Your task to perform on an android device: check battery use Image 0: 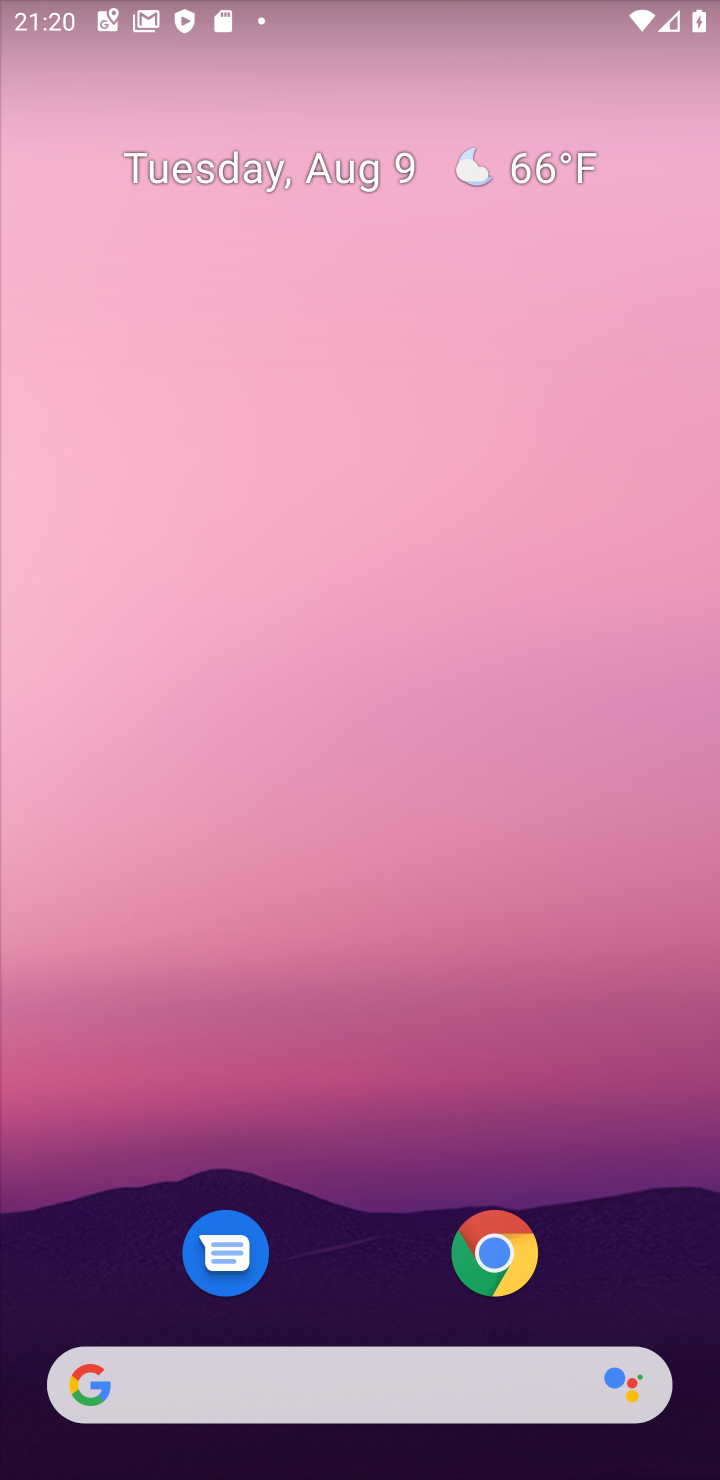
Step 0: press home button
Your task to perform on an android device: check battery use Image 1: 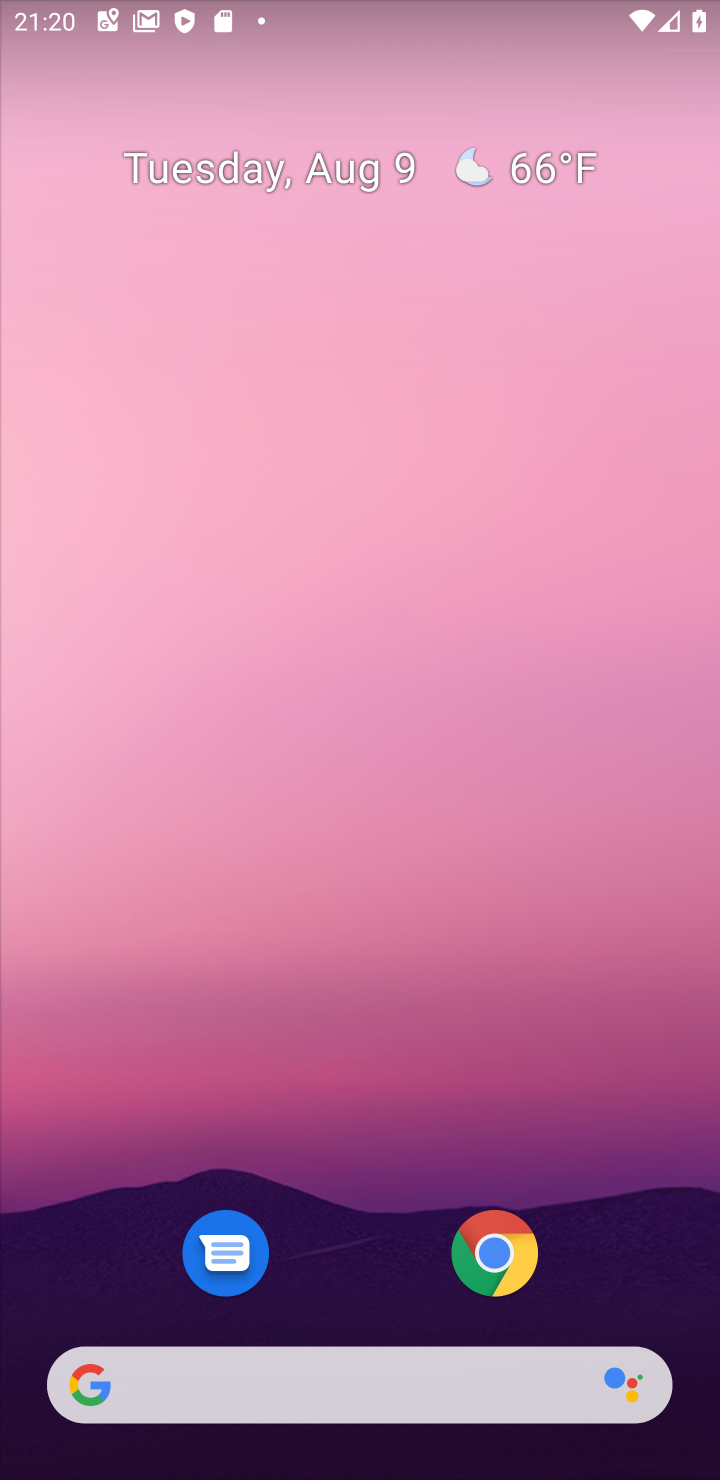
Step 1: drag from (356, 1192) to (44, 6)
Your task to perform on an android device: check battery use Image 2: 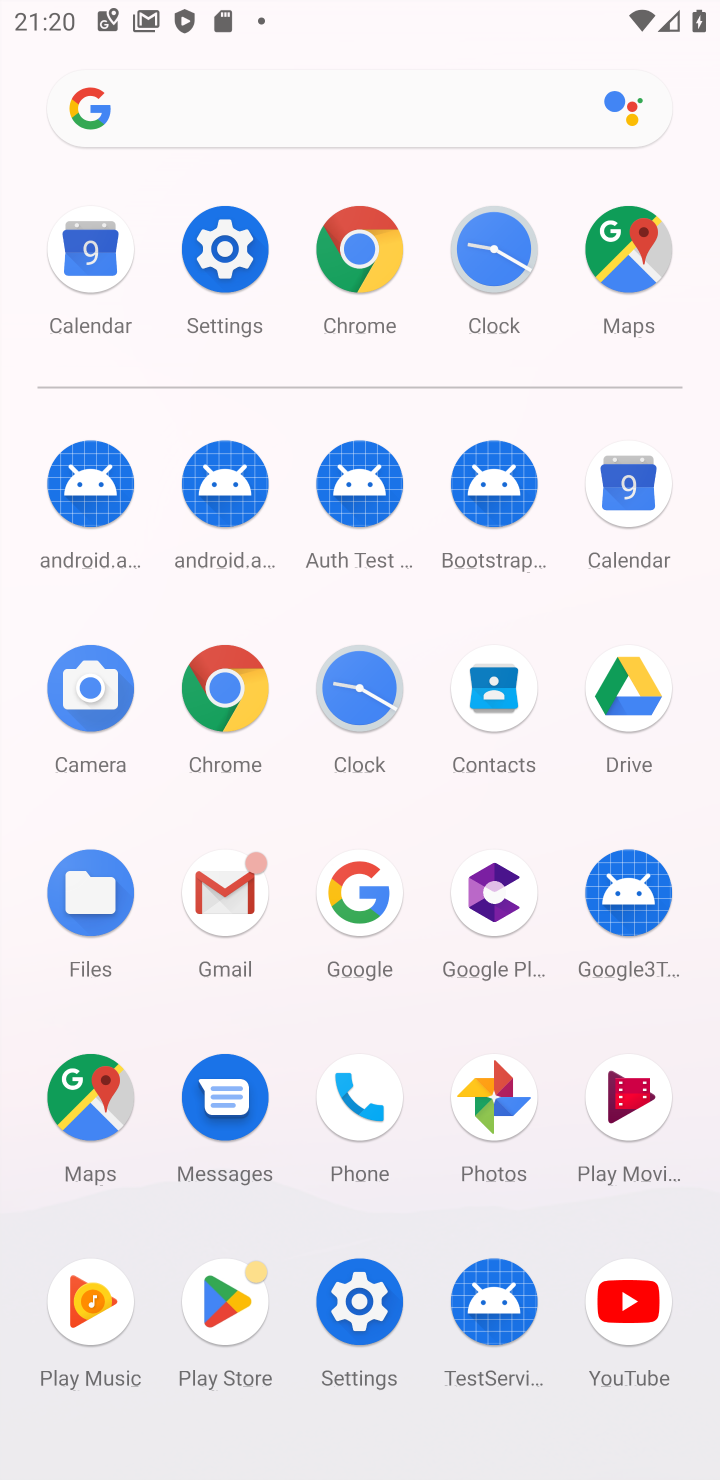
Step 2: click (372, 1314)
Your task to perform on an android device: check battery use Image 3: 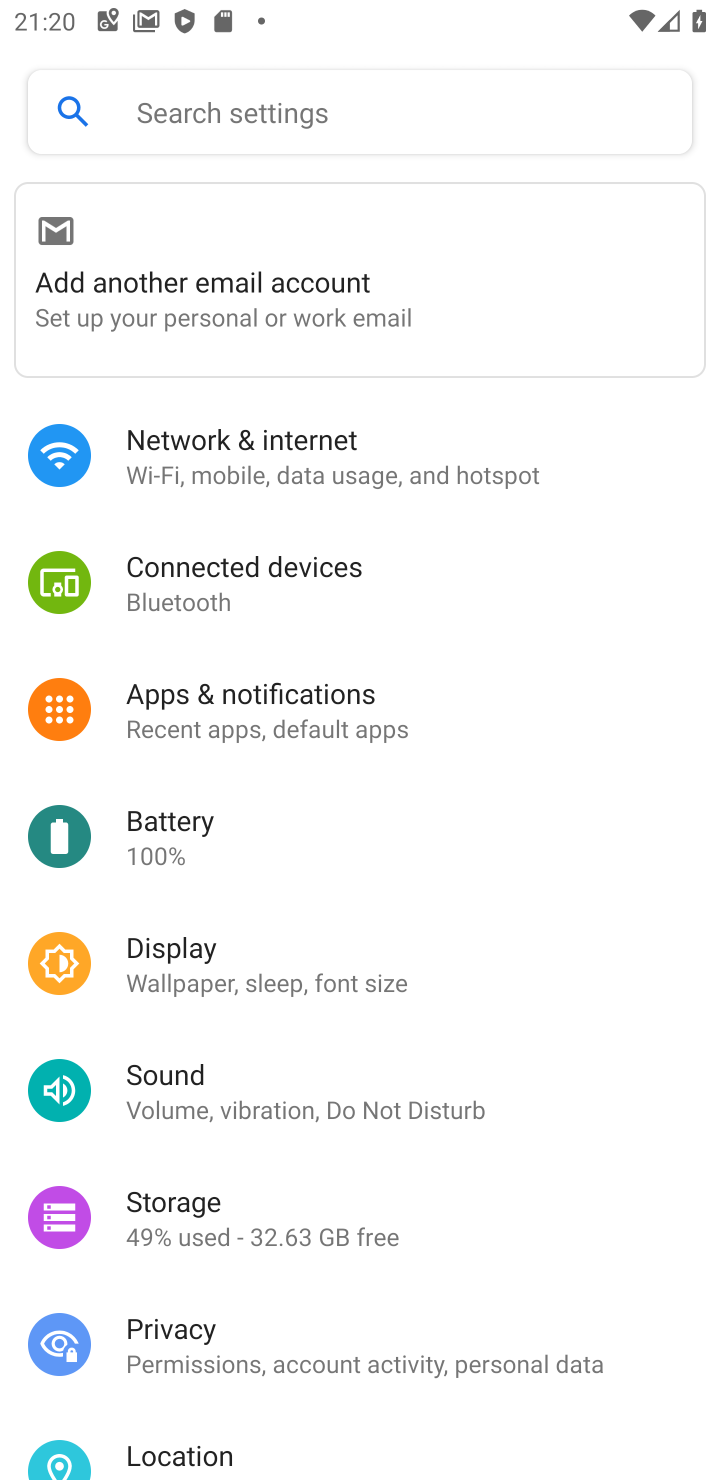
Step 3: click (200, 835)
Your task to perform on an android device: check battery use Image 4: 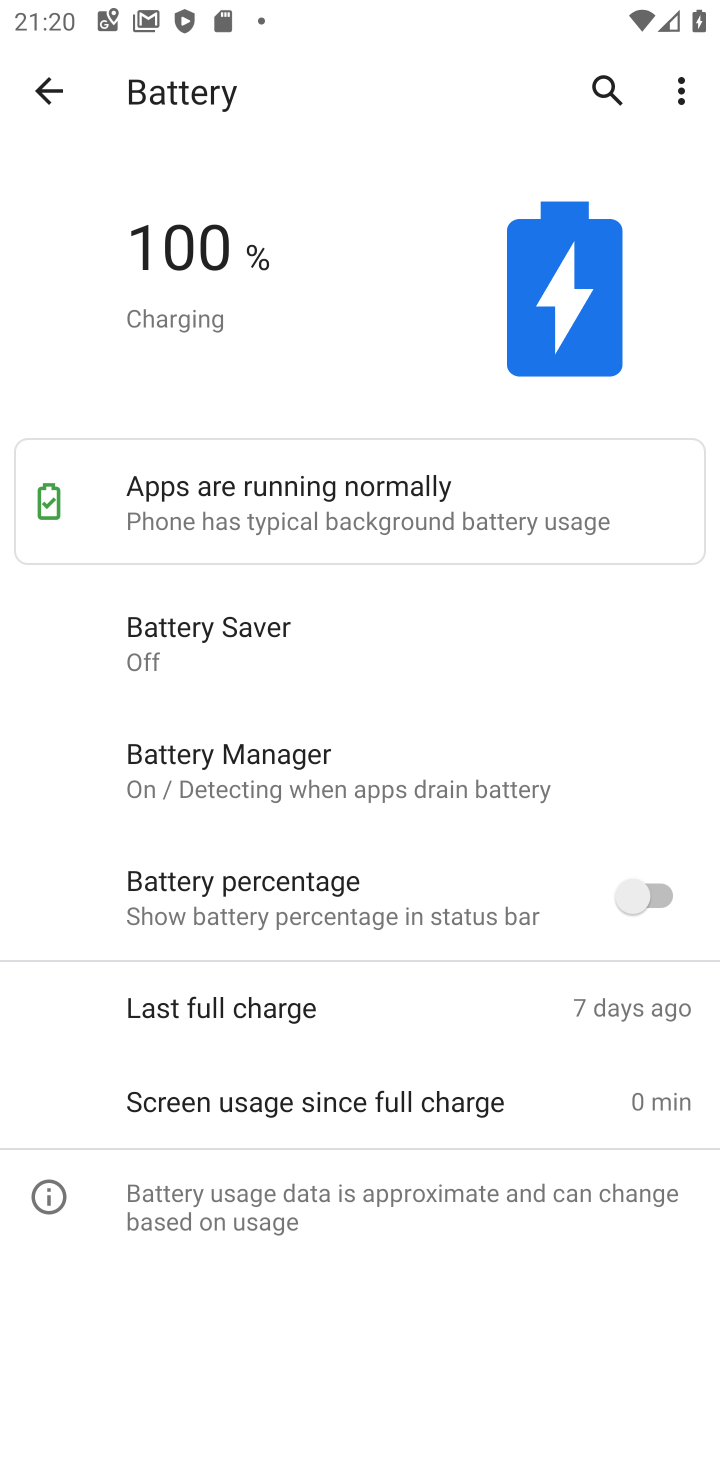
Step 4: click (678, 77)
Your task to perform on an android device: check battery use Image 5: 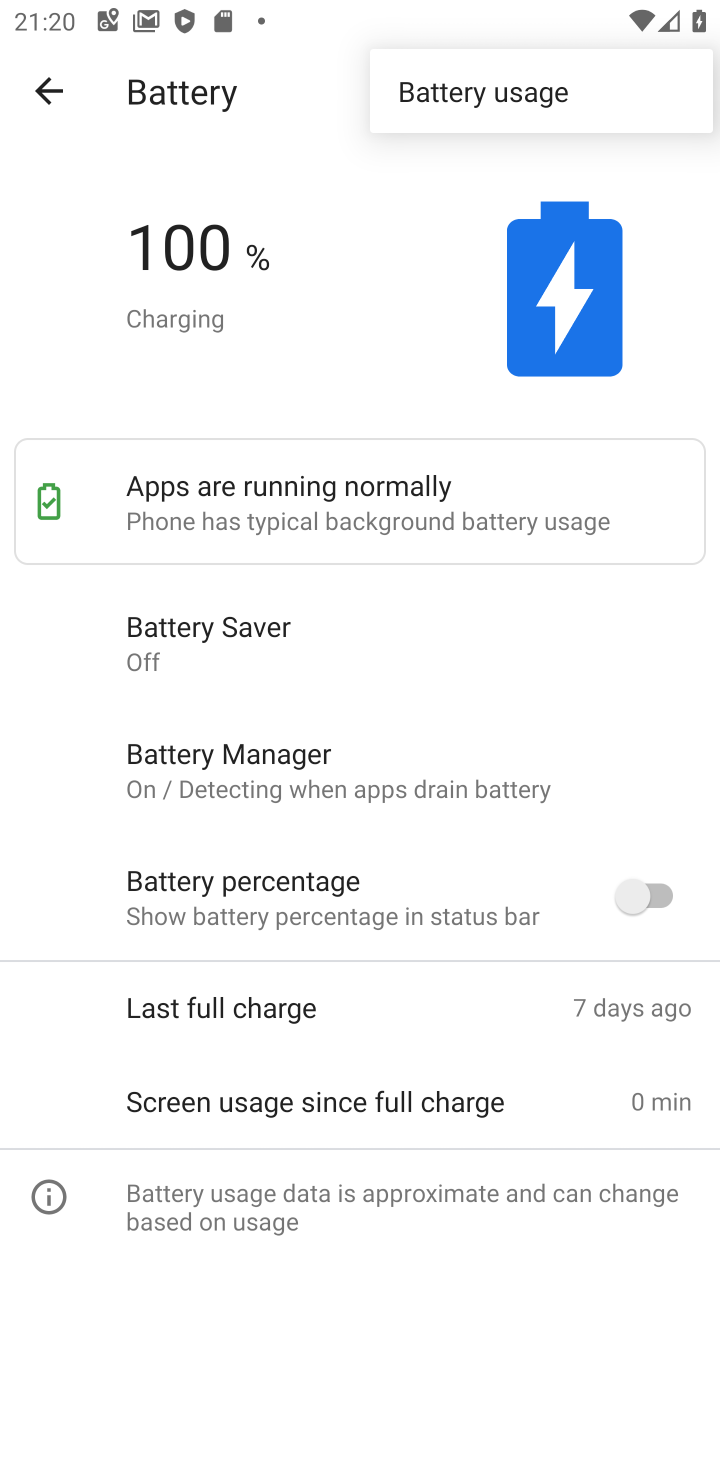
Step 5: click (529, 82)
Your task to perform on an android device: check battery use Image 6: 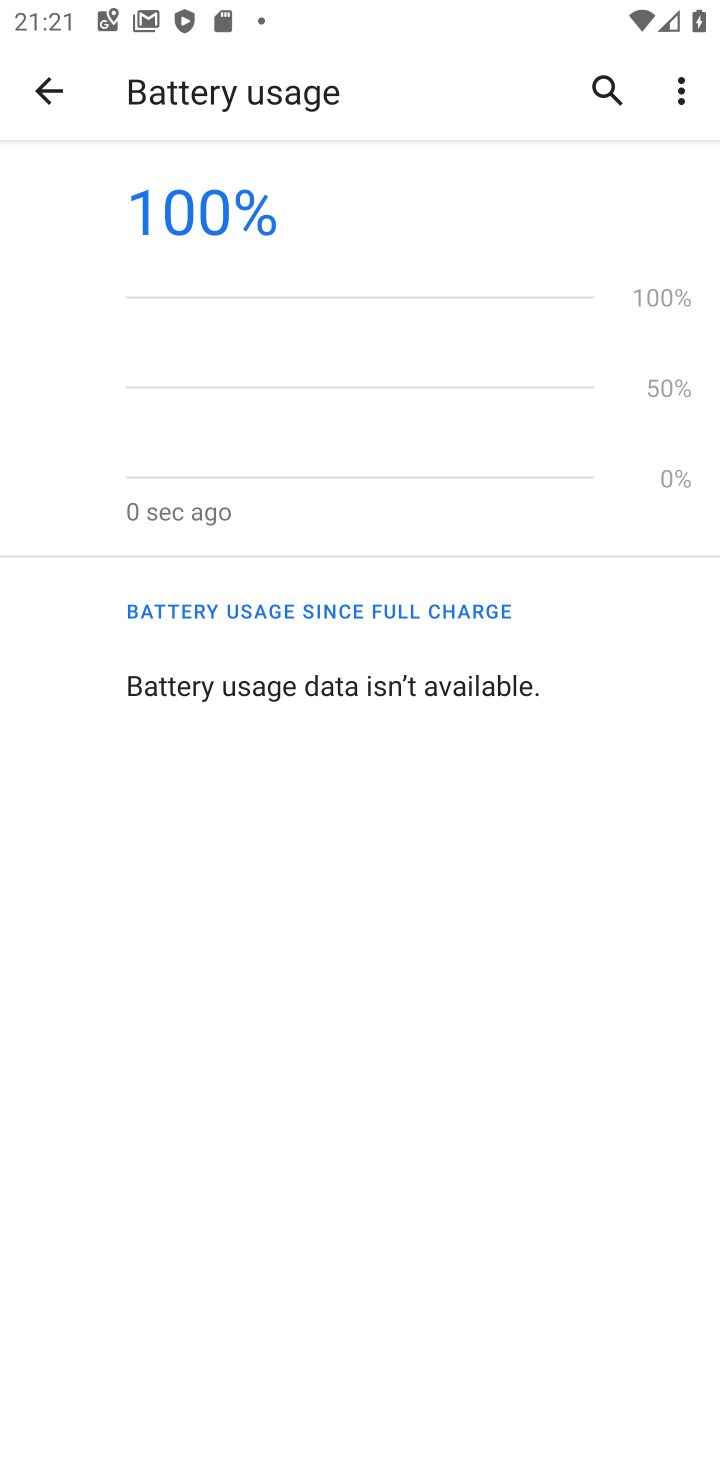
Step 6: task complete